Your task to perform on an android device: Show me recent news Image 0: 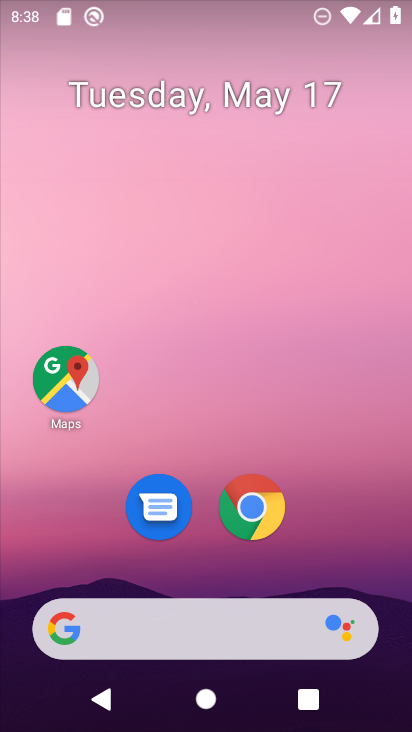
Step 0: click (124, 633)
Your task to perform on an android device: Show me recent news Image 1: 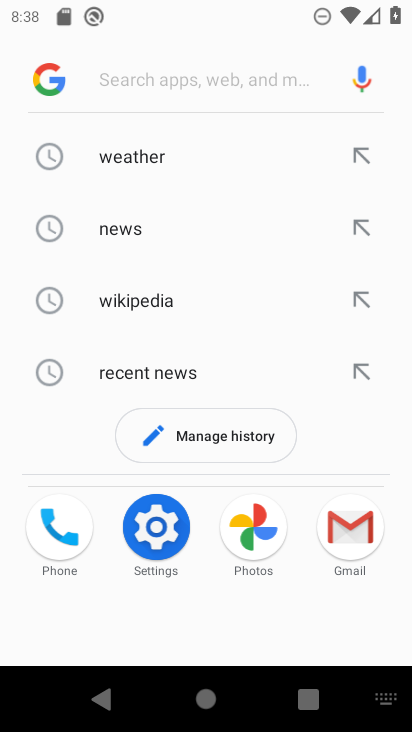
Step 1: click (155, 371)
Your task to perform on an android device: Show me recent news Image 2: 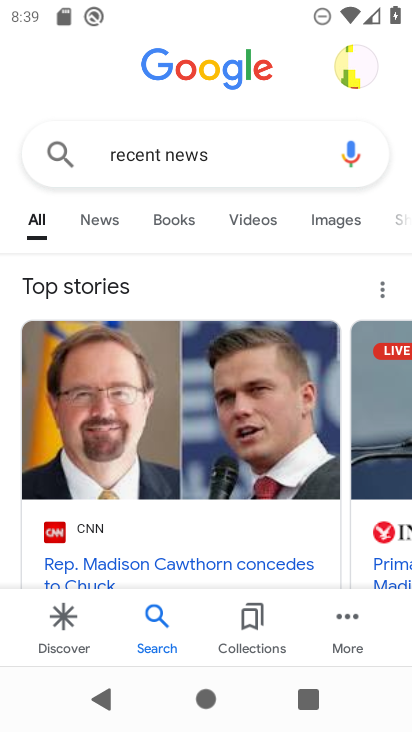
Step 2: drag from (156, 495) to (135, 227)
Your task to perform on an android device: Show me recent news Image 3: 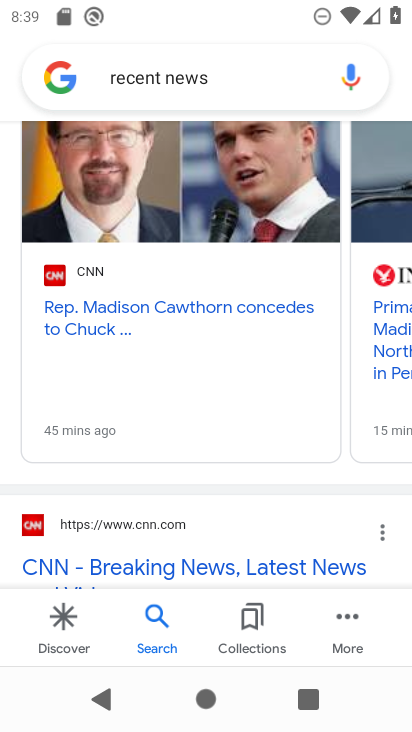
Step 3: click (387, 219)
Your task to perform on an android device: Show me recent news Image 4: 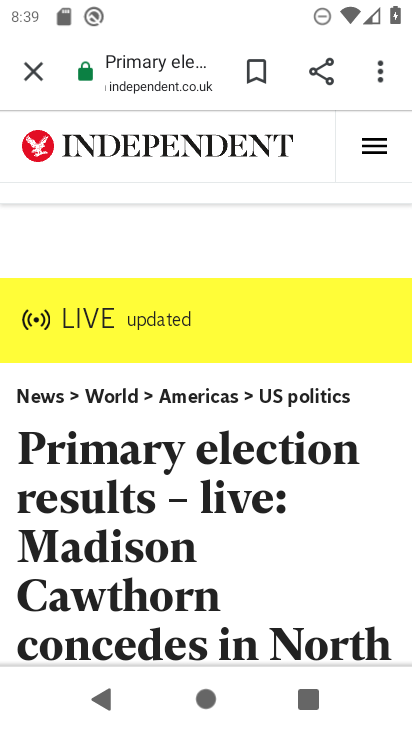
Step 4: task complete